Your task to perform on an android device: Open Maps and search for coffee Image 0: 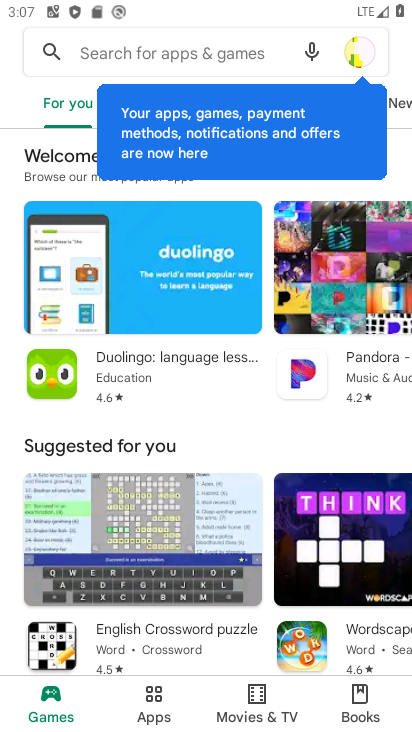
Step 0: press home button
Your task to perform on an android device: Open Maps and search for coffee Image 1: 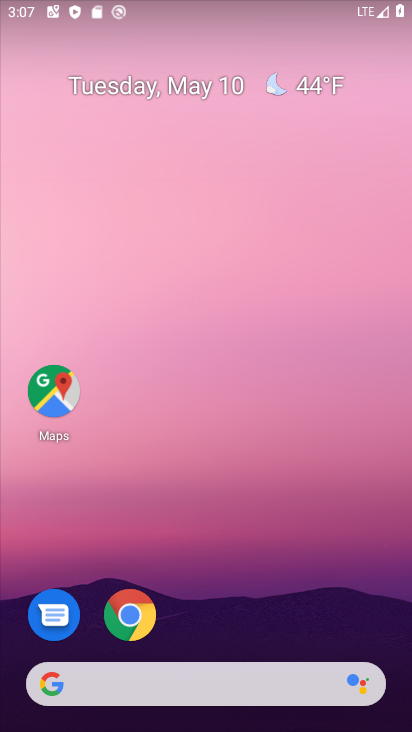
Step 1: drag from (195, 552) to (211, 56)
Your task to perform on an android device: Open Maps and search for coffee Image 2: 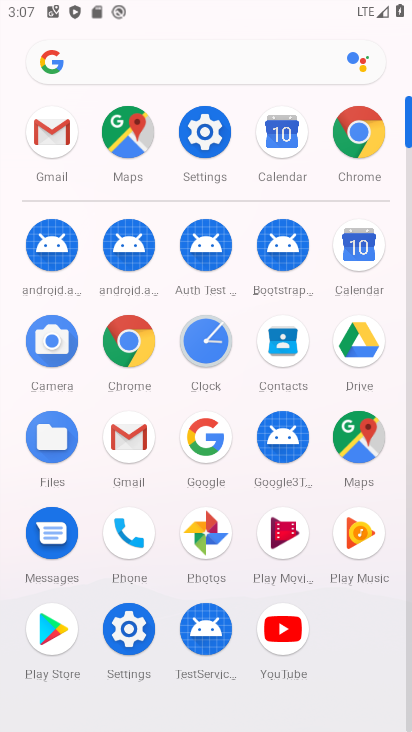
Step 2: click (147, 127)
Your task to perform on an android device: Open Maps and search for coffee Image 3: 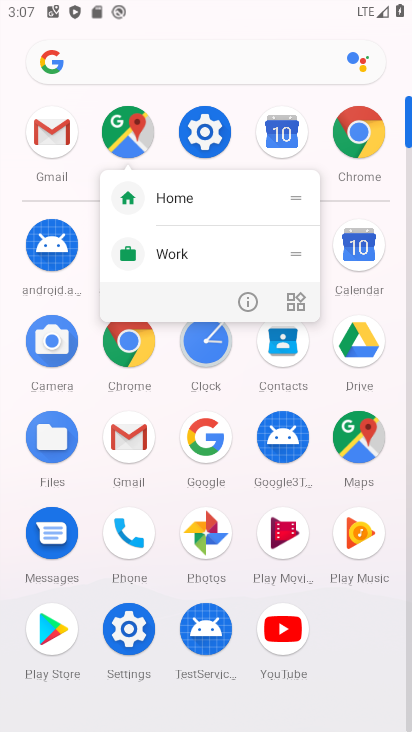
Step 3: click (124, 129)
Your task to perform on an android device: Open Maps and search for coffee Image 4: 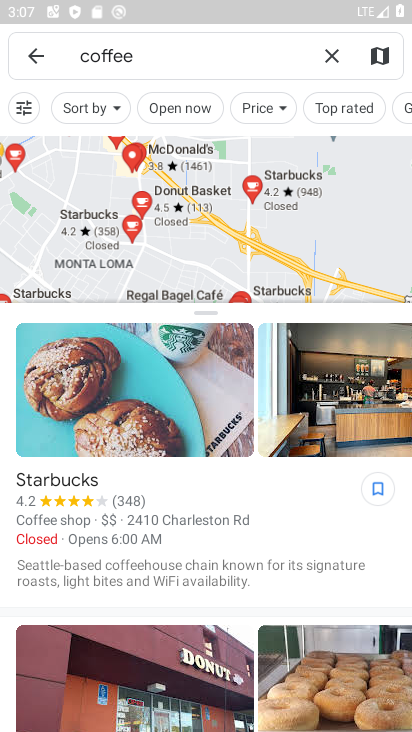
Step 4: task complete